Your task to perform on an android device: Go to Android settings Image 0: 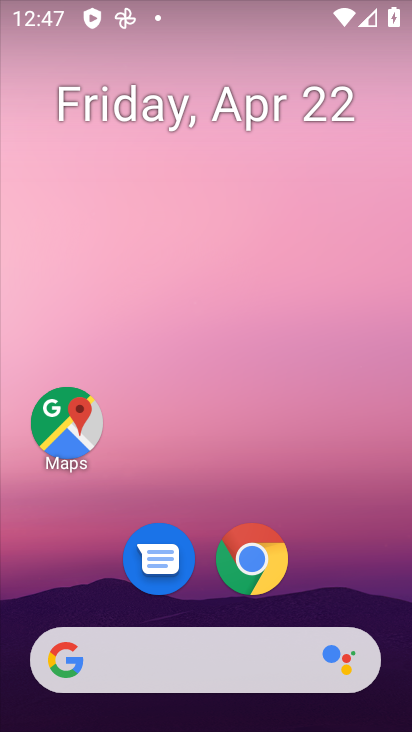
Step 0: drag from (354, 580) to (346, 133)
Your task to perform on an android device: Go to Android settings Image 1: 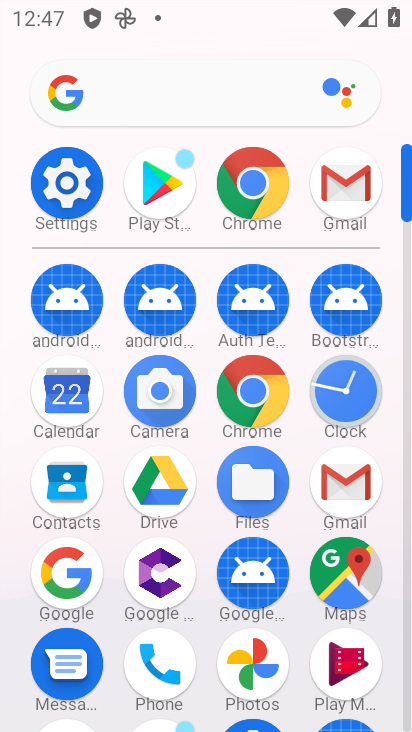
Step 1: click (80, 196)
Your task to perform on an android device: Go to Android settings Image 2: 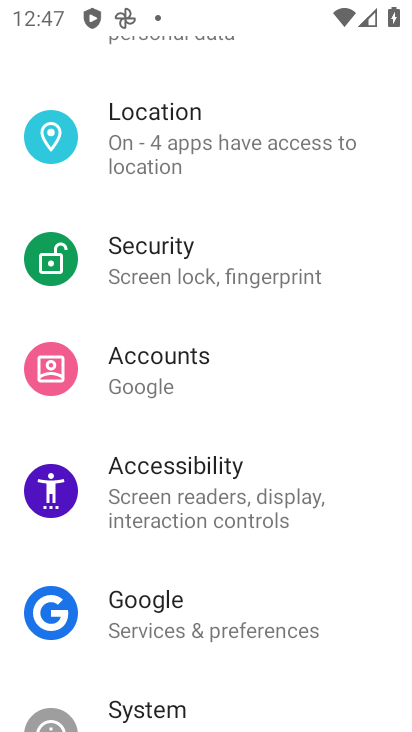
Step 2: drag from (368, 268) to (361, 384)
Your task to perform on an android device: Go to Android settings Image 3: 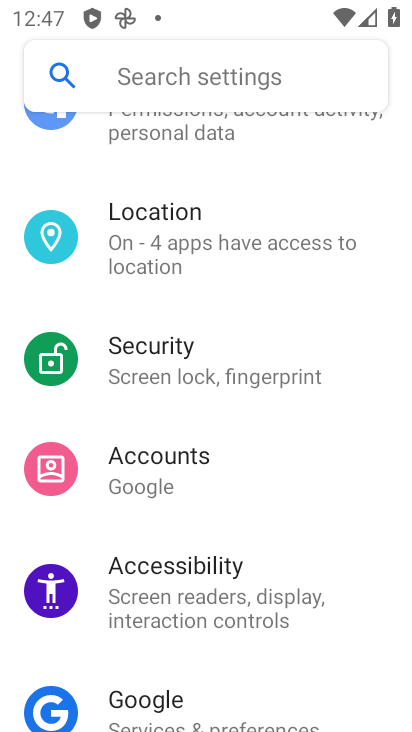
Step 3: drag from (353, 289) to (351, 424)
Your task to perform on an android device: Go to Android settings Image 4: 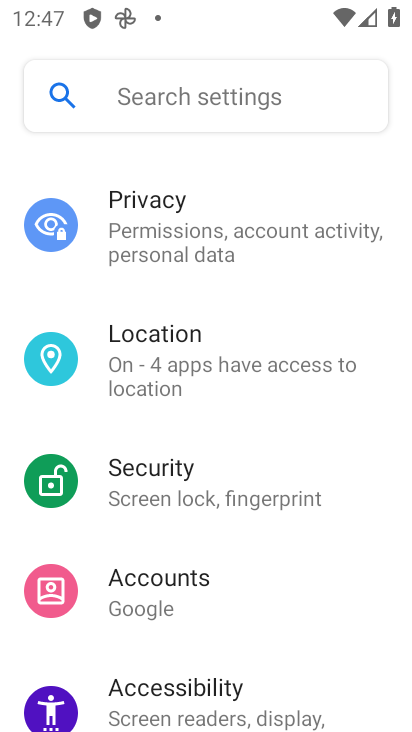
Step 4: drag from (377, 287) to (376, 456)
Your task to perform on an android device: Go to Android settings Image 5: 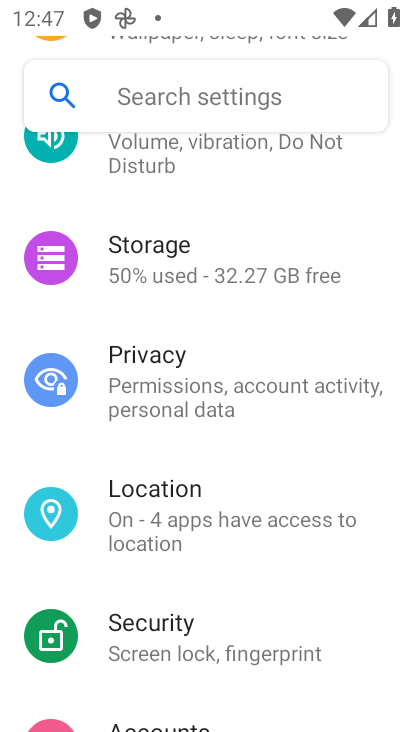
Step 5: drag from (373, 282) to (351, 490)
Your task to perform on an android device: Go to Android settings Image 6: 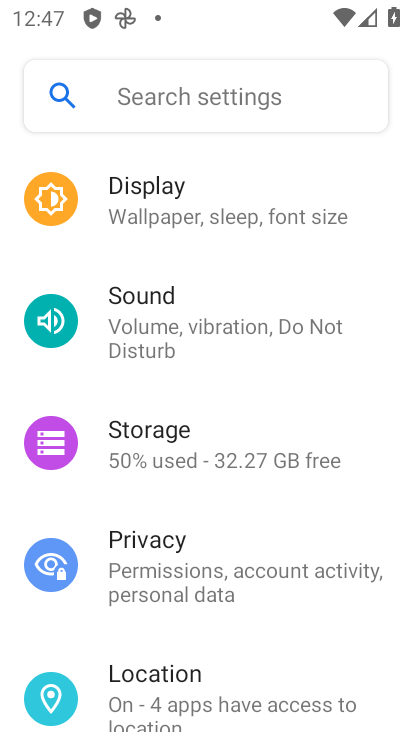
Step 6: drag from (373, 289) to (375, 484)
Your task to perform on an android device: Go to Android settings Image 7: 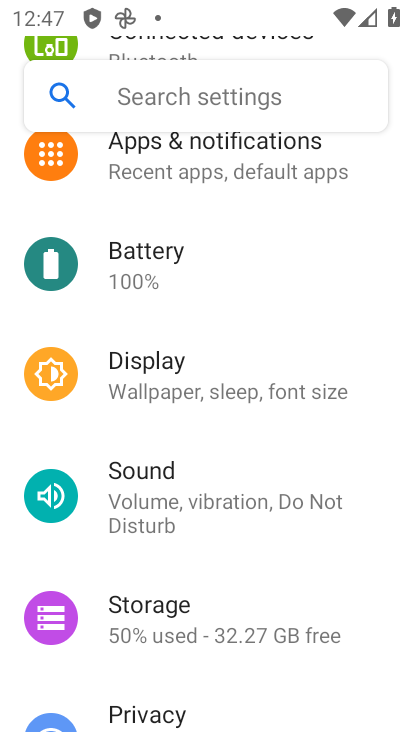
Step 7: drag from (367, 549) to (387, 354)
Your task to perform on an android device: Go to Android settings Image 8: 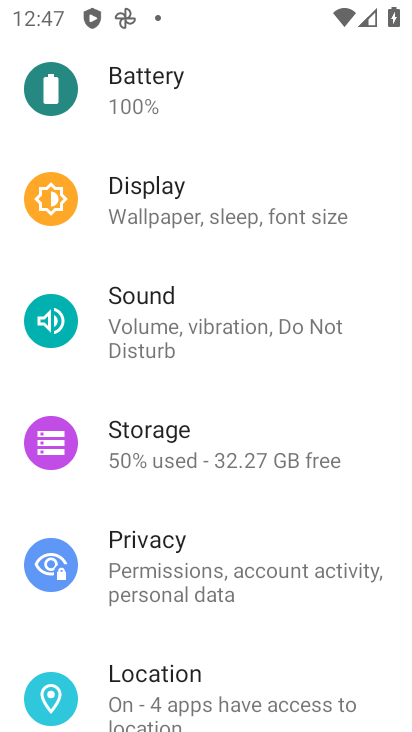
Step 8: drag from (375, 515) to (370, 311)
Your task to perform on an android device: Go to Android settings Image 9: 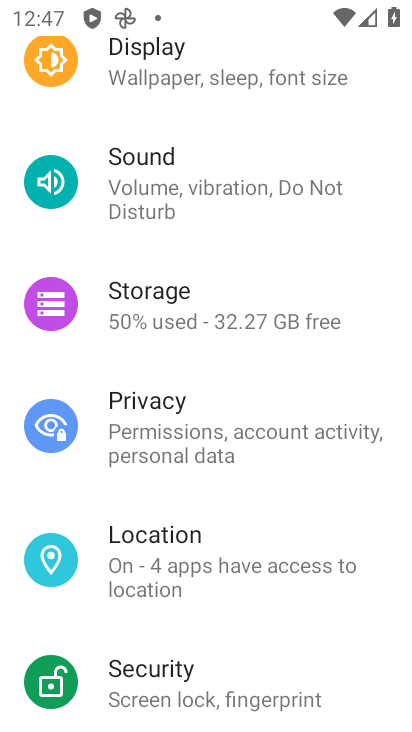
Step 9: drag from (351, 509) to (369, 320)
Your task to perform on an android device: Go to Android settings Image 10: 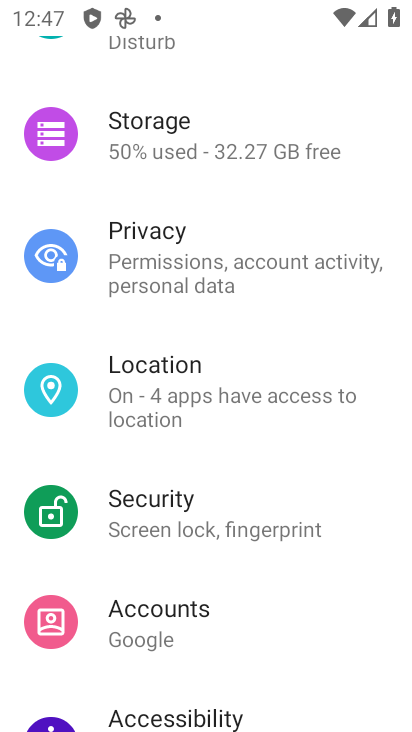
Step 10: drag from (364, 578) to (380, 412)
Your task to perform on an android device: Go to Android settings Image 11: 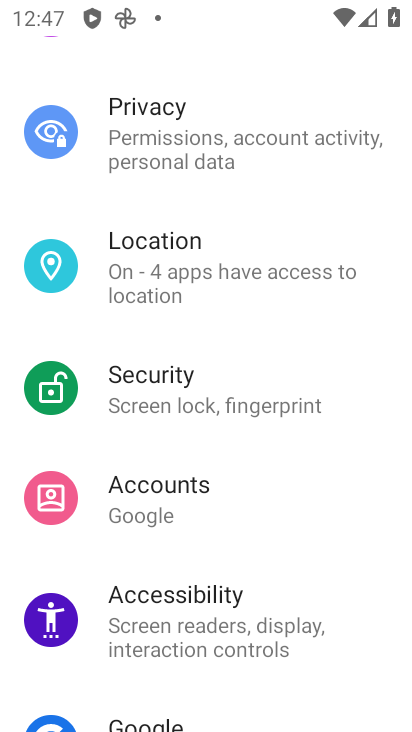
Step 11: drag from (361, 624) to (362, 447)
Your task to perform on an android device: Go to Android settings Image 12: 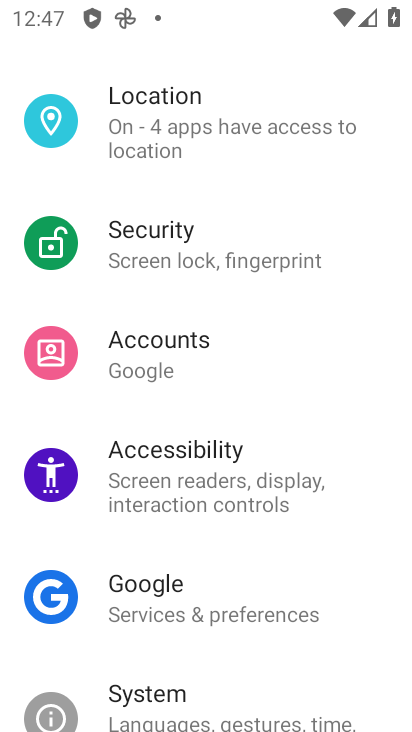
Step 12: drag from (334, 663) to (343, 450)
Your task to perform on an android device: Go to Android settings Image 13: 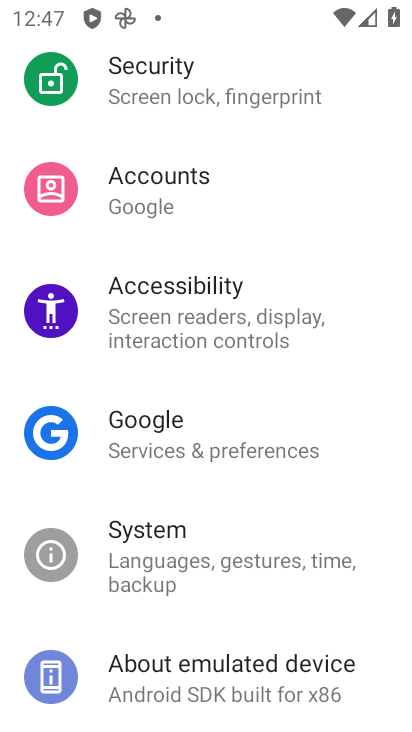
Step 13: drag from (368, 675) to (377, 425)
Your task to perform on an android device: Go to Android settings Image 14: 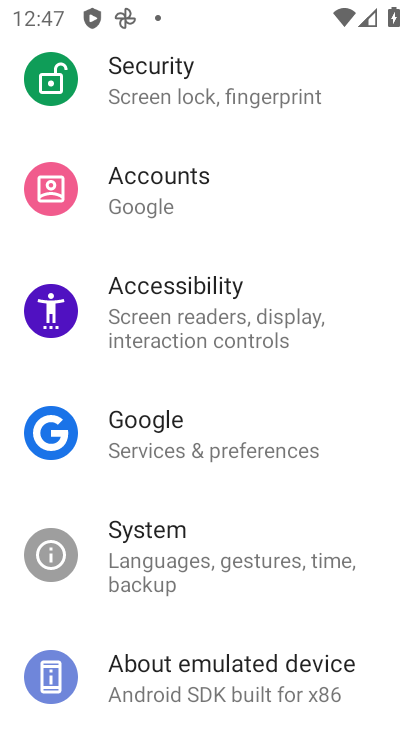
Step 14: click (290, 559)
Your task to perform on an android device: Go to Android settings Image 15: 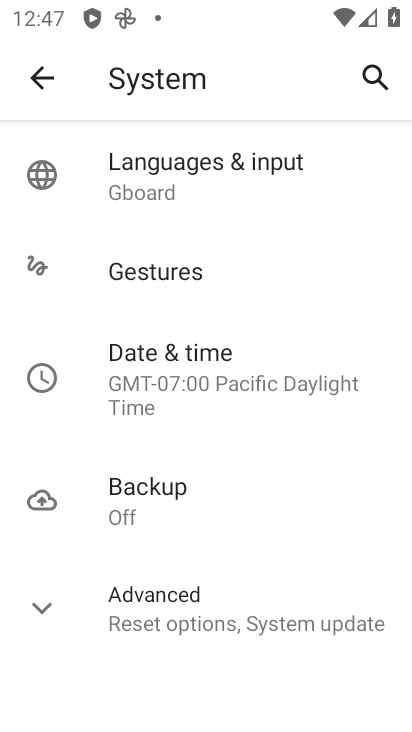
Step 15: click (210, 623)
Your task to perform on an android device: Go to Android settings Image 16: 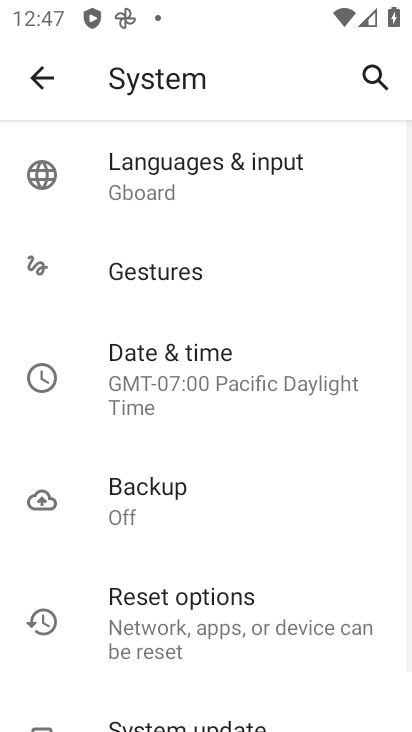
Step 16: task complete